Your task to perform on an android device: add a contact Image 0: 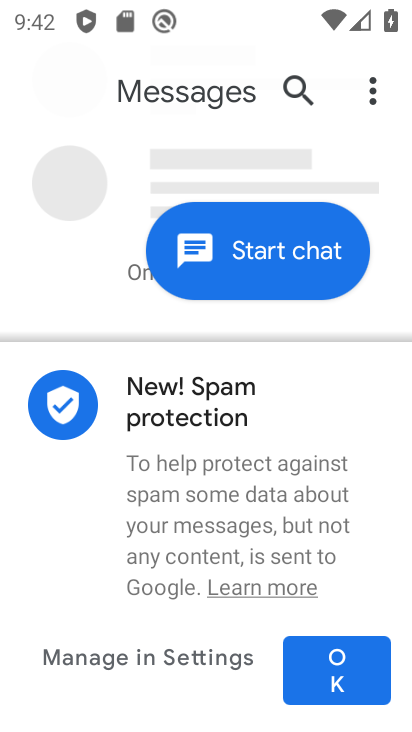
Step 0: press home button
Your task to perform on an android device: add a contact Image 1: 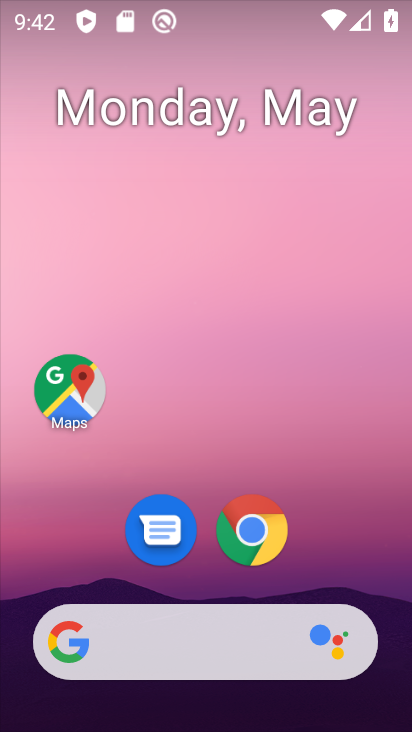
Step 1: drag from (293, 570) to (256, 93)
Your task to perform on an android device: add a contact Image 2: 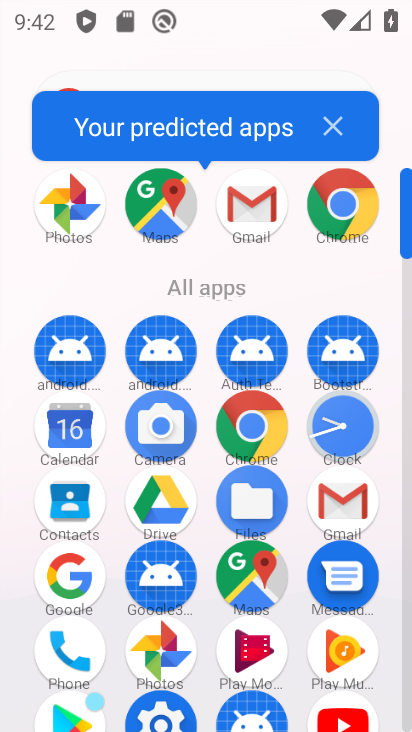
Step 2: drag from (199, 643) to (194, 355)
Your task to perform on an android device: add a contact Image 3: 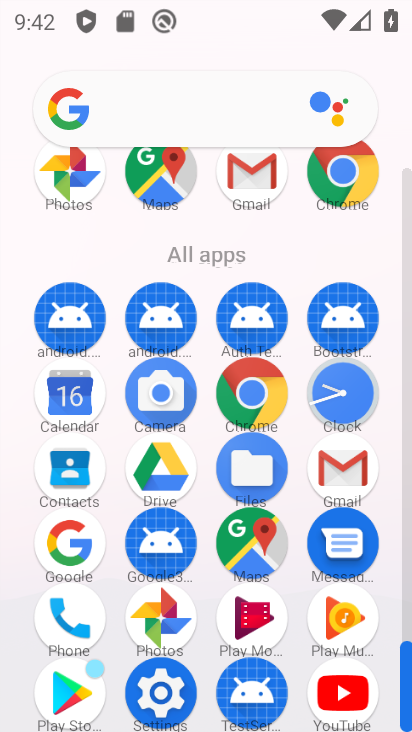
Step 3: click (46, 459)
Your task to perform on an android device: add a contact Image 4: 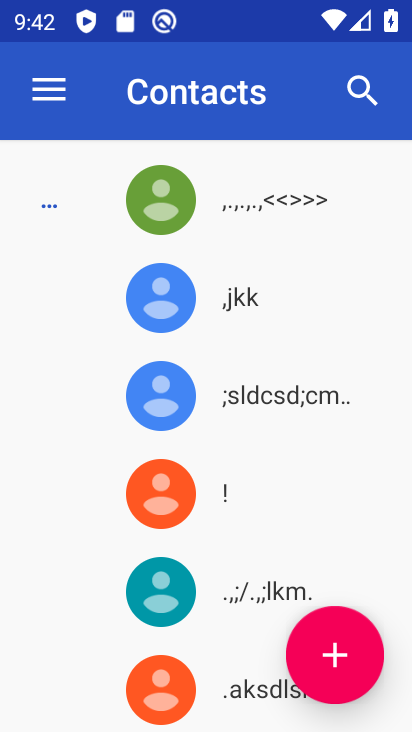
Step 4: click (324, 654)
Your task to perform on an android device: add a contact Image 5: 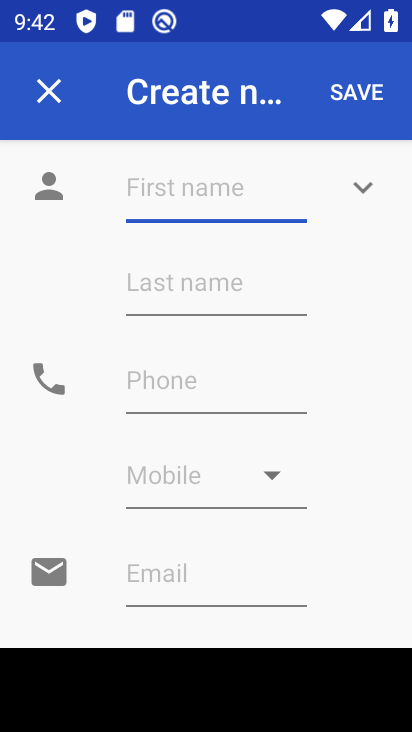
Step 5: click (165, 196)
Your task to perform on an android device: add a contact Image 6: 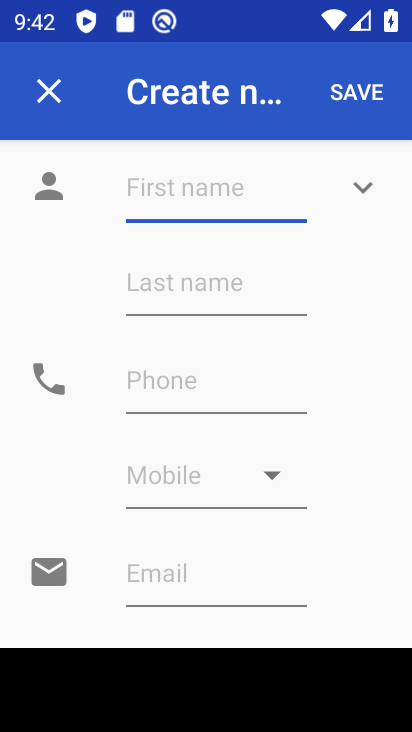
Step 6: type "Naresh"
Your task to perform on an android device: add a contact Image 7: 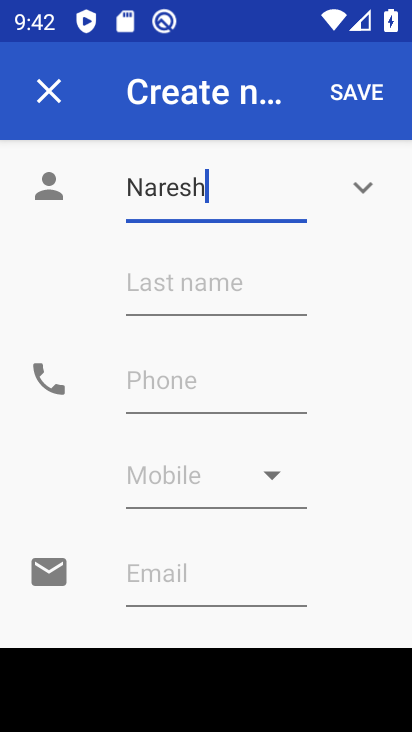
Step 7: click (177, 378)
Your task to perform on an android device: add a contact Image 8: 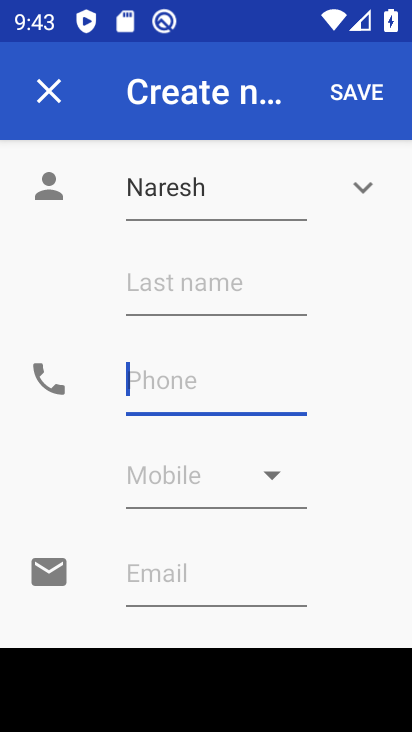
Step 8: type "9890979000"
Your task to perform on an android device: add a contact Image 9: 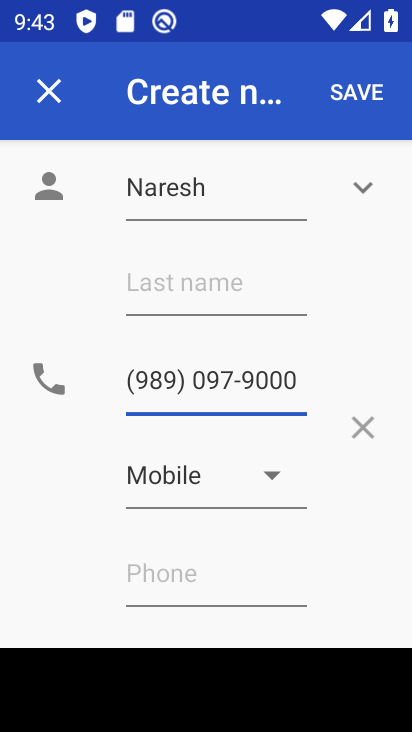
Step 9: click (369, 88)
Your task to perform on an android device: add a contact Image 10: 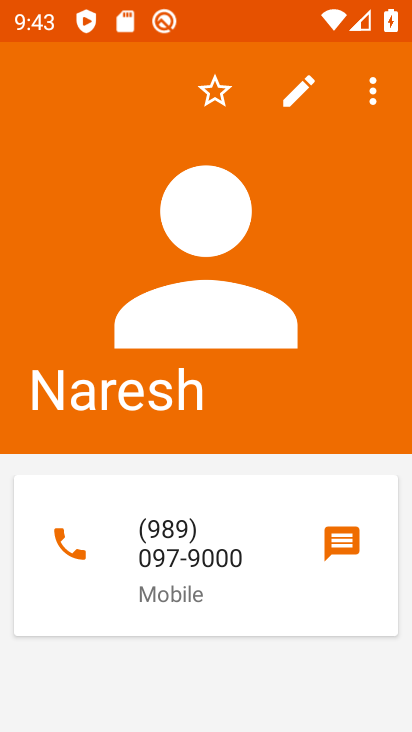
Step 10: task complete